Your task to perform on an android device: Go to Google maps Image 0: 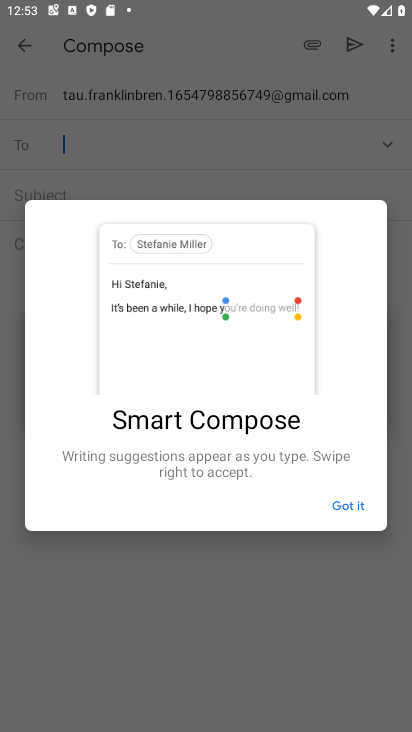
Step 0: press home button
Your task to perform on an android device: Go to Google maps Image 1: 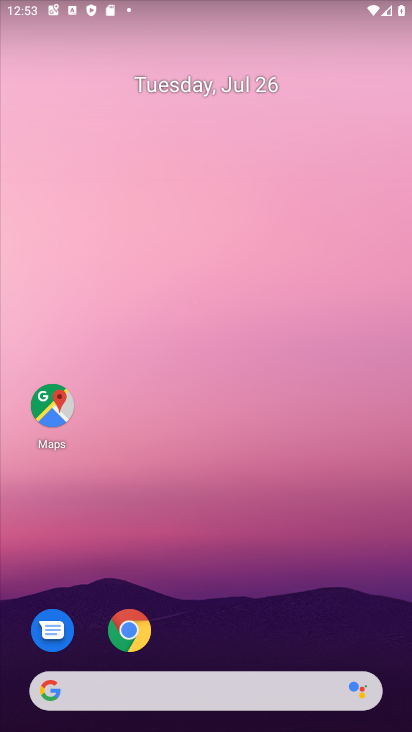
Step 1: click (53, 411)
Your task to perform on an android device: Go to Google maps Image 2: 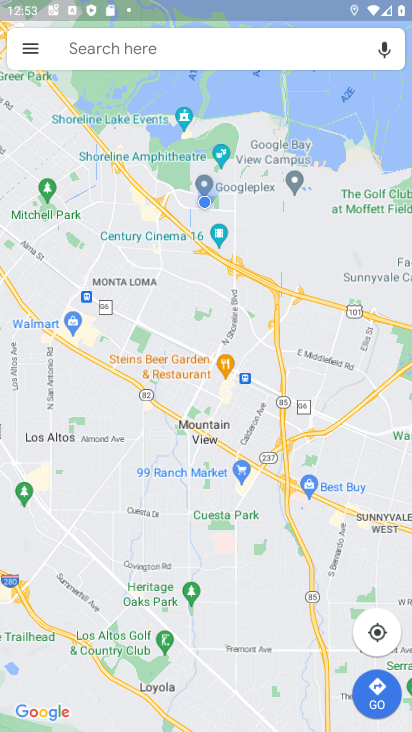
Step 2: task complete